Your task to perform on an android device: Search for "logitech g pro" on newegg.com, select the first entry, and add it to the cart. Image 0: 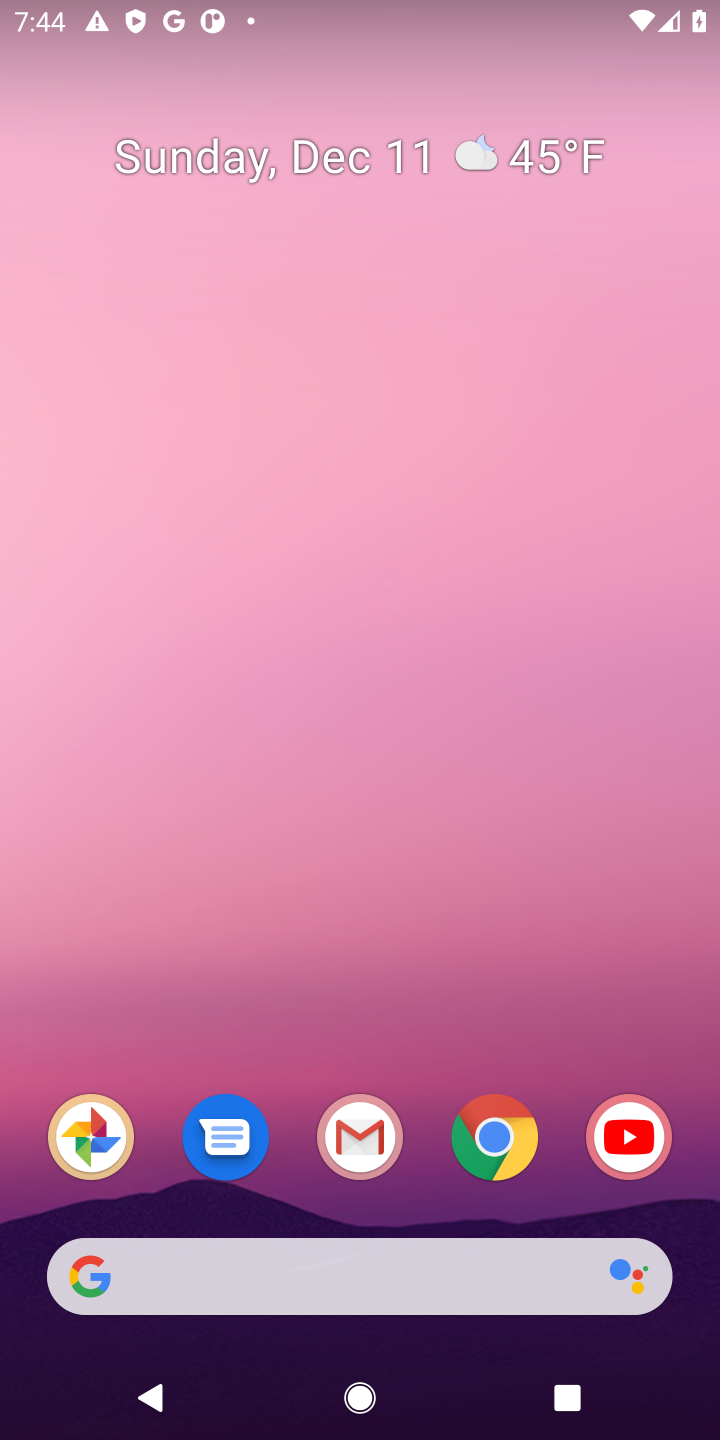
Step 0: click (504, 1138)
Your task to perform on an android device: Search for "logitech g pro" on newegg.com, select the first entry, and add it to the cart. Image 1: 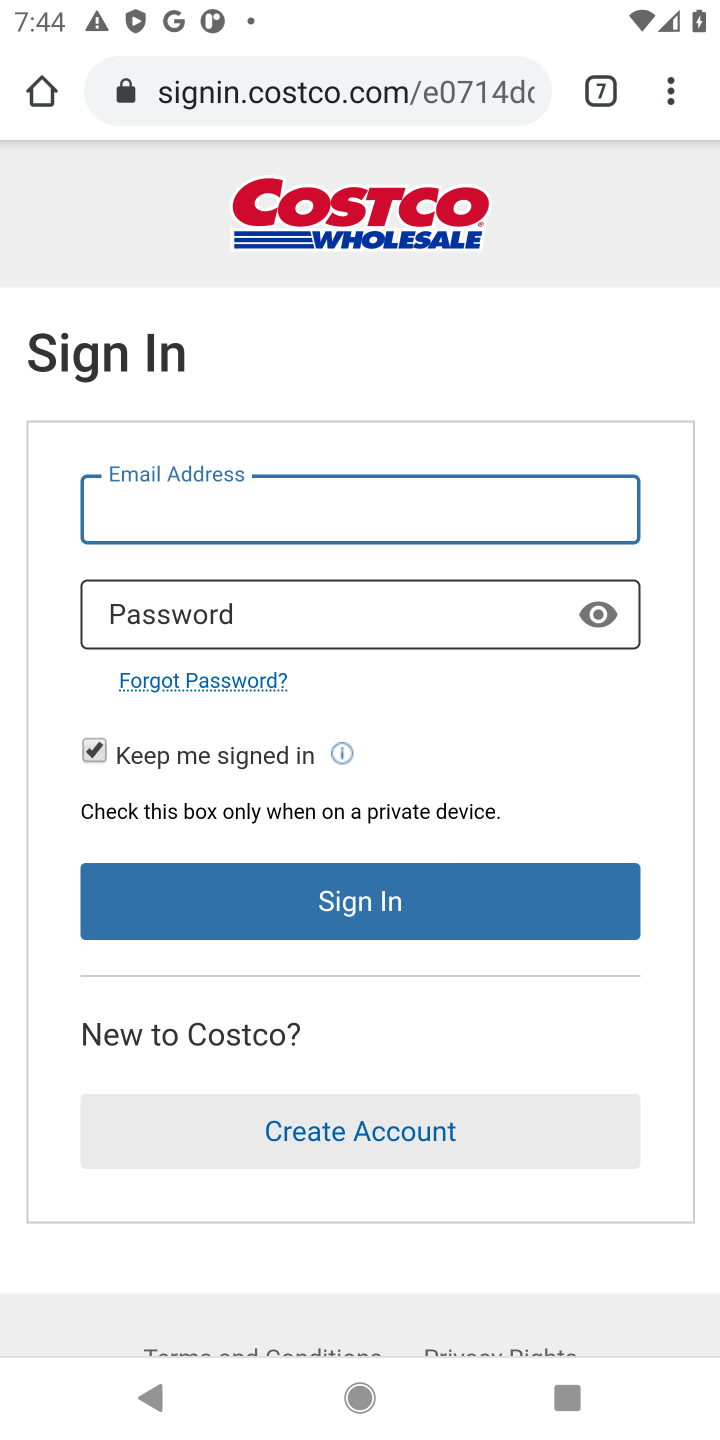
Step 1: click (308, 86)
Your task to perform on an android device: Search for "logitech g pro" on newegg.com, select the first entry, and add it to the cart. Image 2: 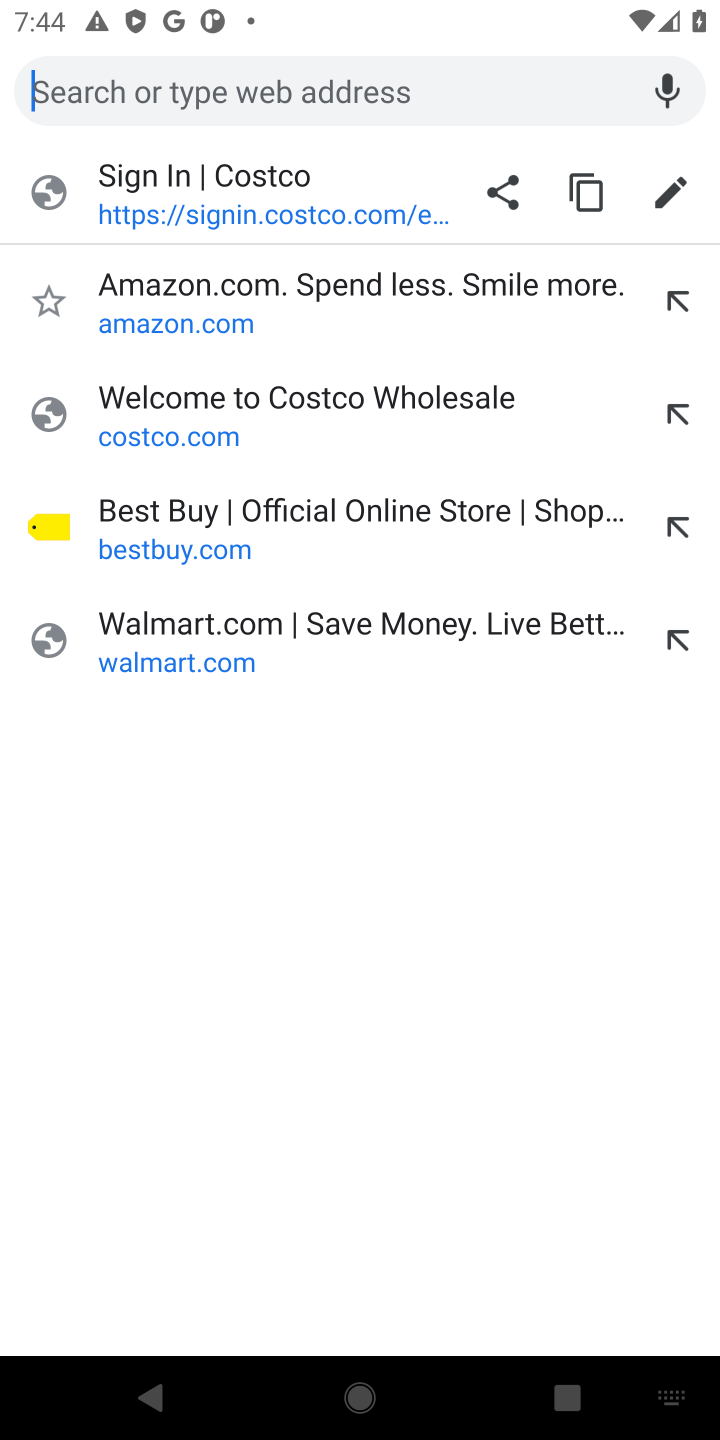
Step 2: type "newegg"
Your task to perform on an android device: Search for "logitech g pro" on newegg.com, select the first entry, and add it to the cart. Image 3: 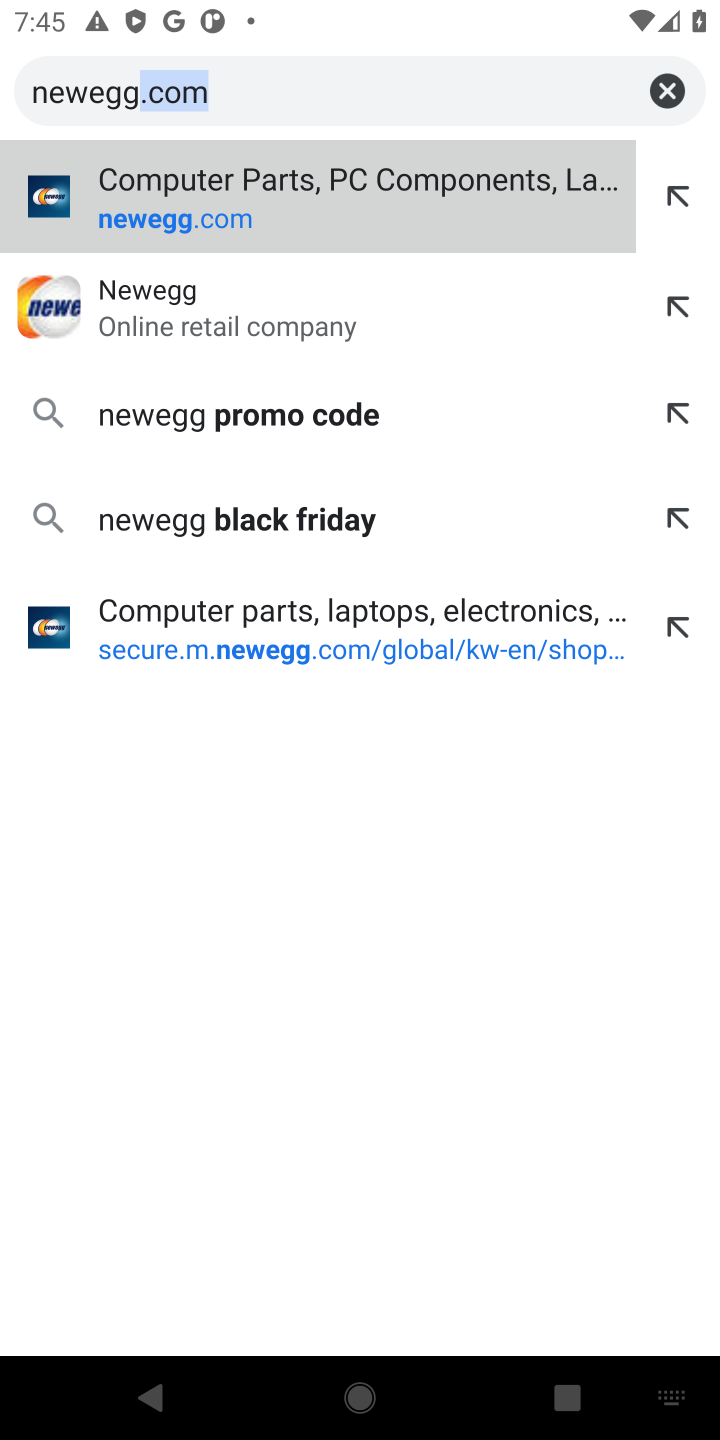
Step 3: click (108, 280)
Your task to perform on an android device: Search for "logitech g pro" on newegg.com, select the first entry, and add it to the cart. Image 4: 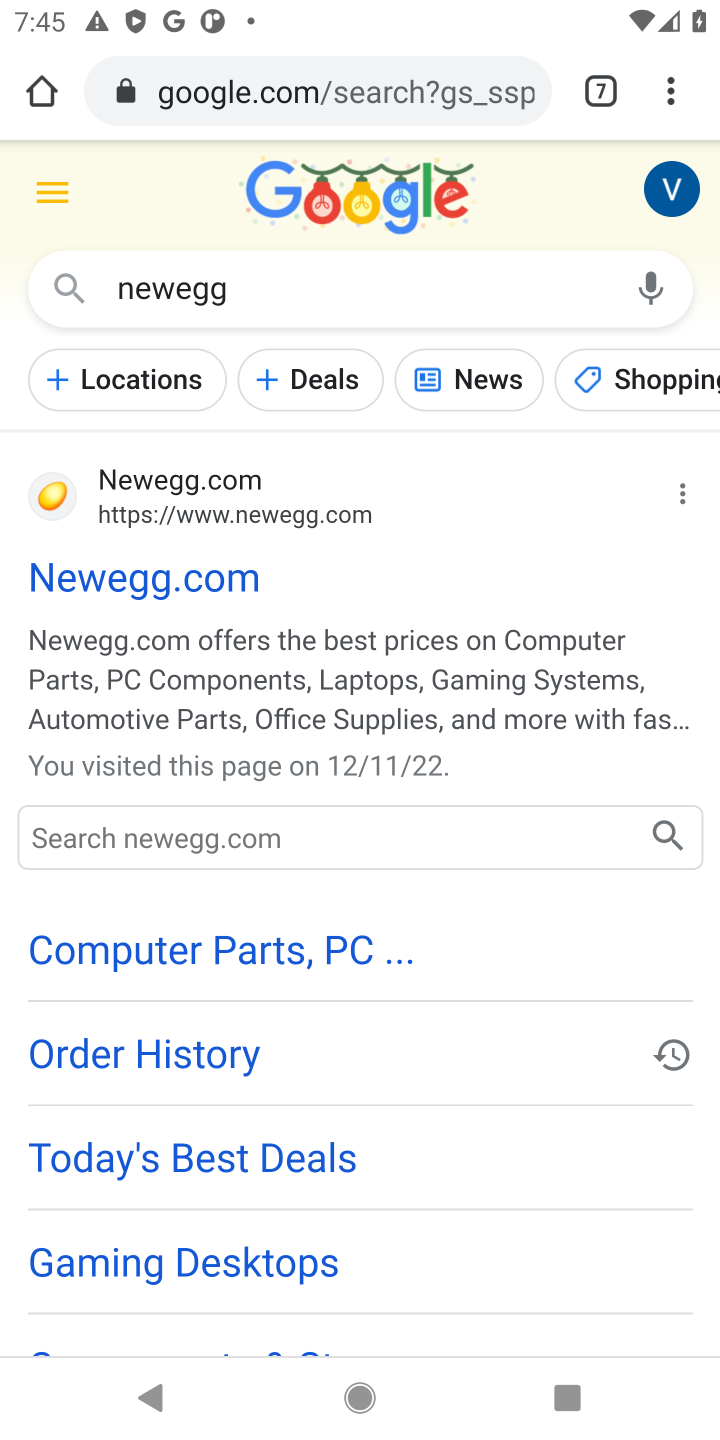
Step 4: click (131, 307)
Your task to perform on an android device: Search for "logitech g pro" on newegg.com, select the first entry, and add it to the cart. Image 5: 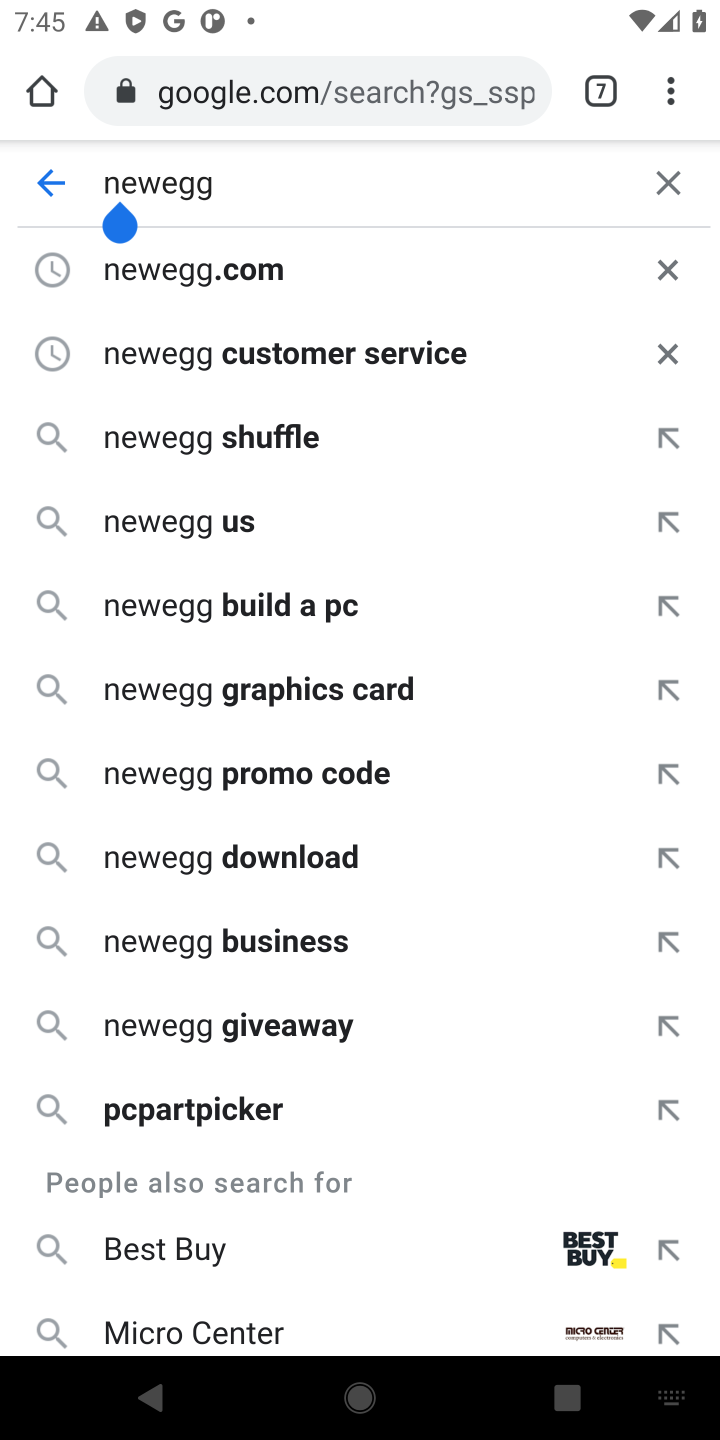
Step 5: click (202, 278)
Your task to perform on an android device: Search for "logitech g pro" on newegg.com, select the first entry, and add it to the cart. Image 6: 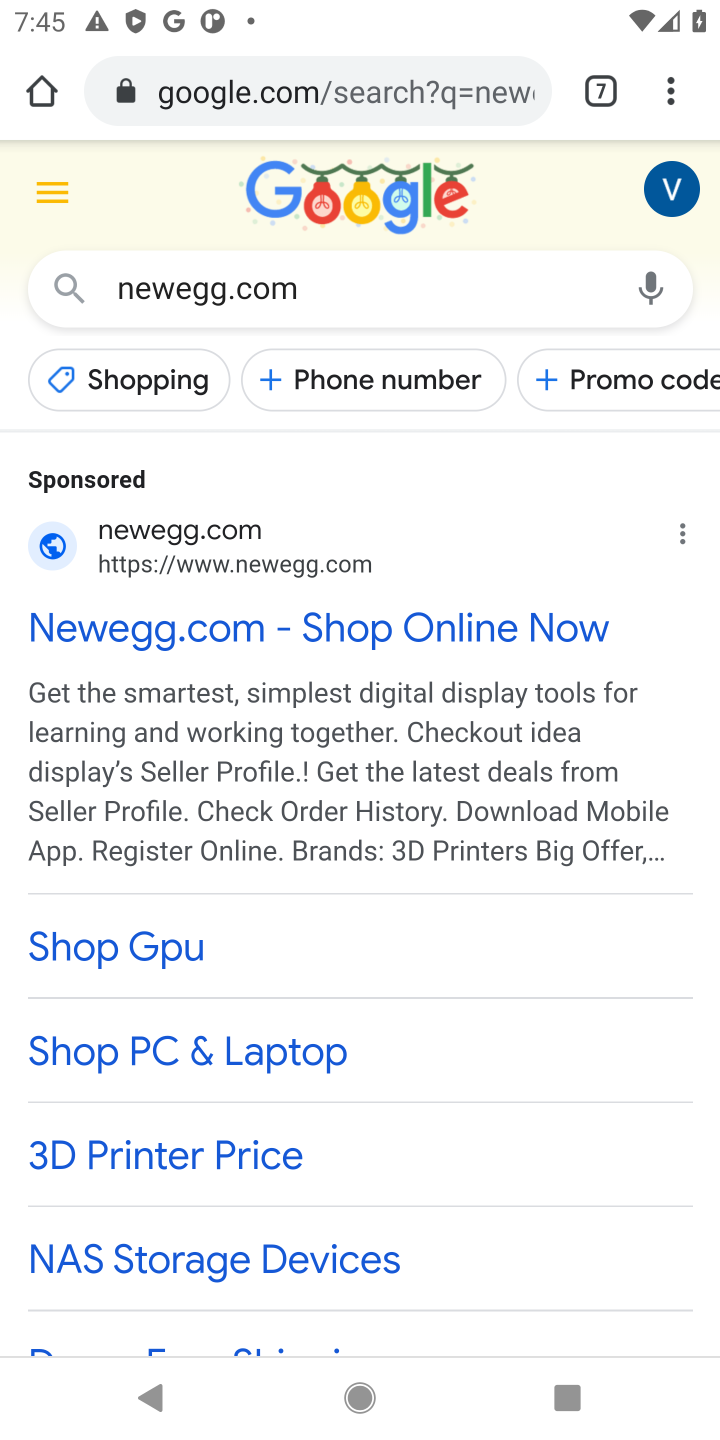
Step 6: click (166, 643)
Your task to perform on an android device: Search for "logitech g pro" on newegg.com, select the first entry, and add it to the cart. Image 7: 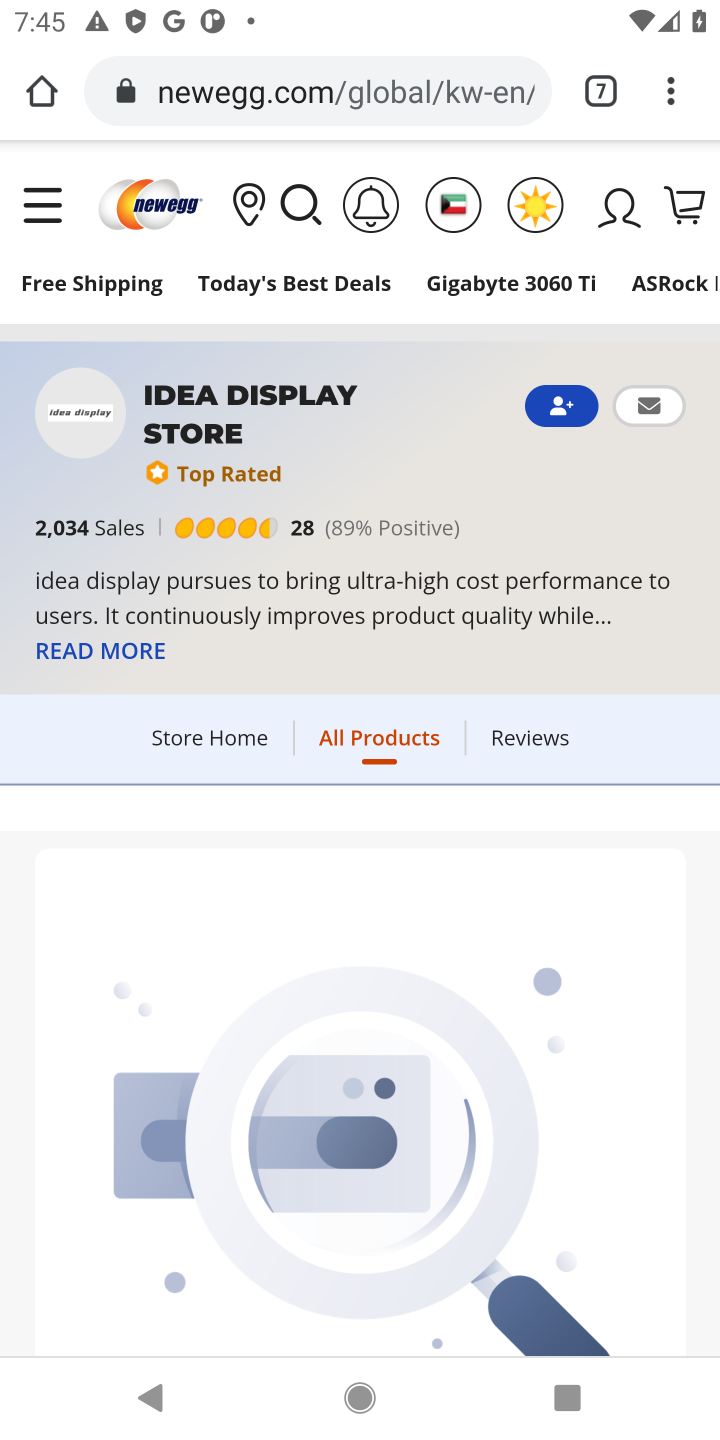
Step 7: click (294, 212)
Your task to perform on an android device: Search for "logitech g pro" on newegg.com, select the first entry, and add it to the cart. Image 8: 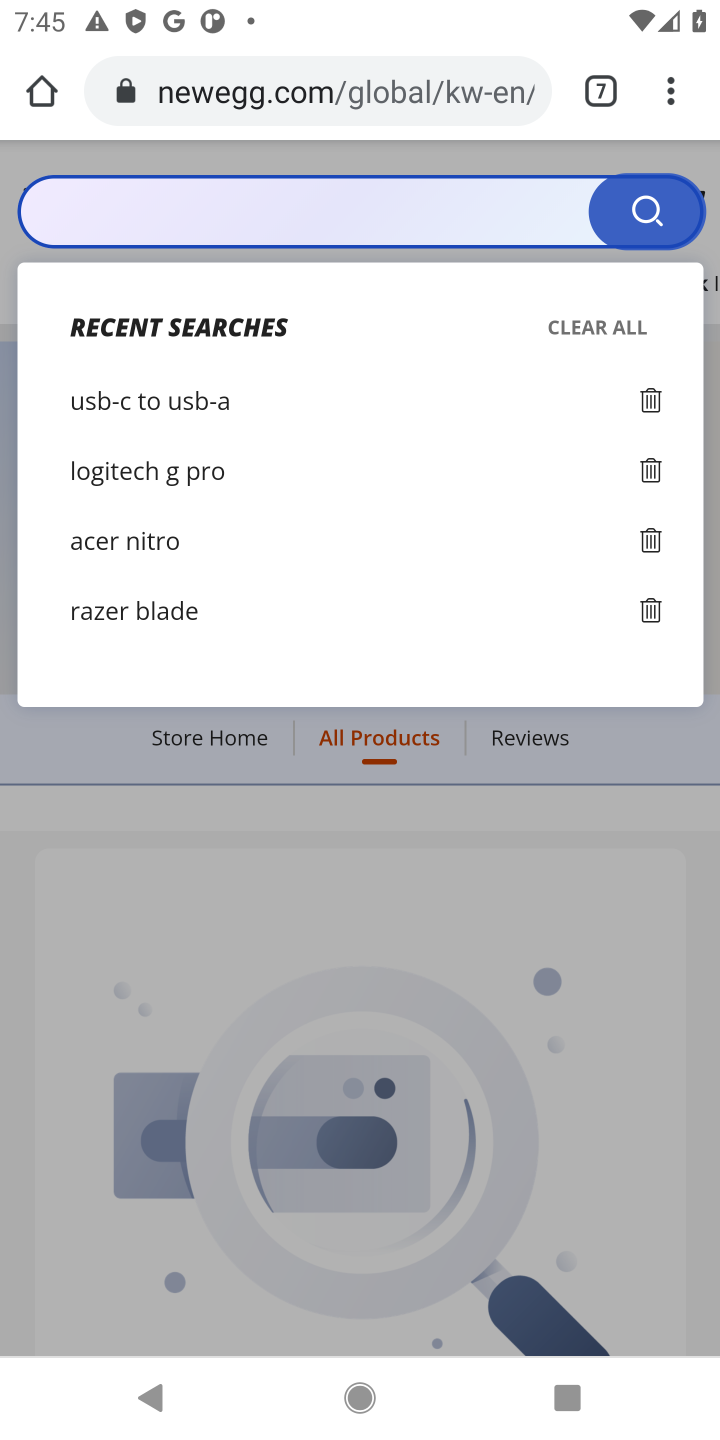
Step 8: click (294, 212)
Your task to perform on an android device: Search for "logitech g pro" on newegg.com, select the first entry, and add it to the cart. Image 9: 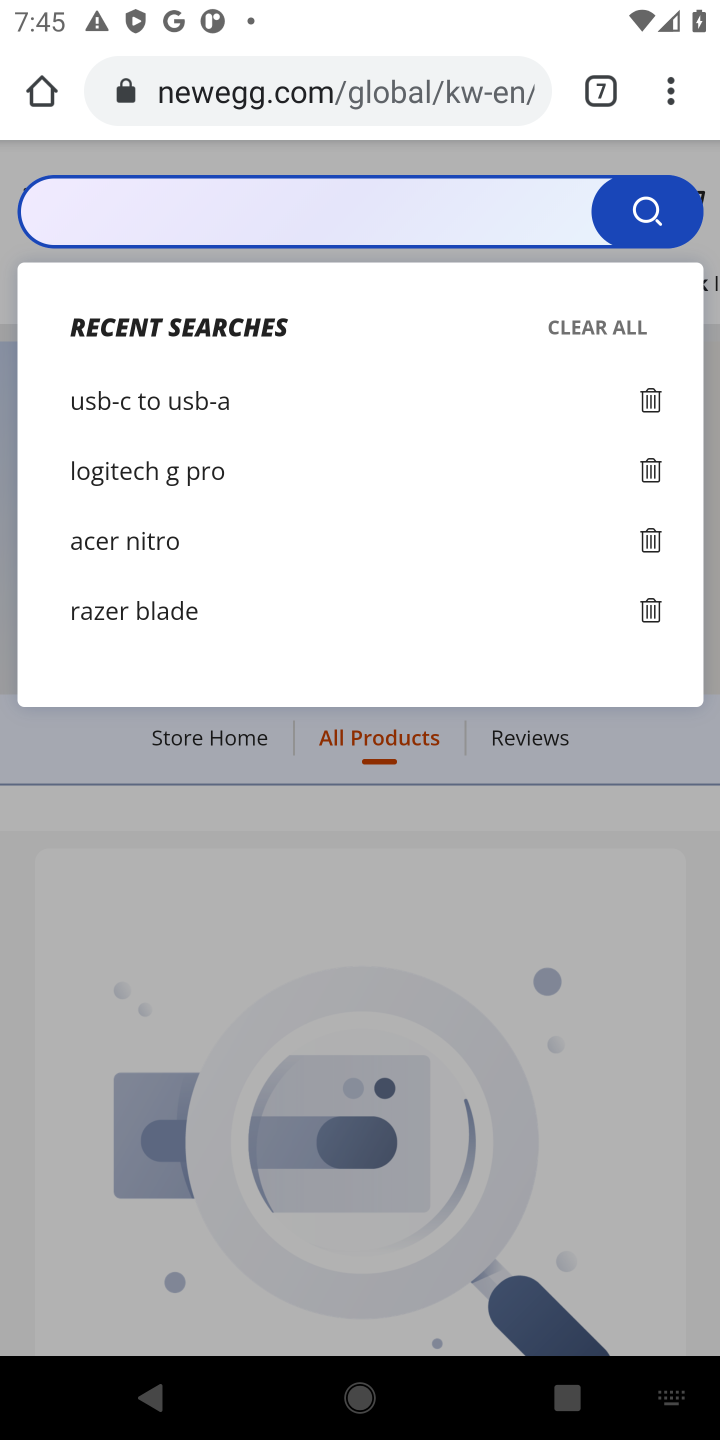
Step 9: type "logitech g pro"
Your task to perform on an android device: Search for "logitech g pro" on newegg.com, select the first entry, and add it to the cart. Image 10: 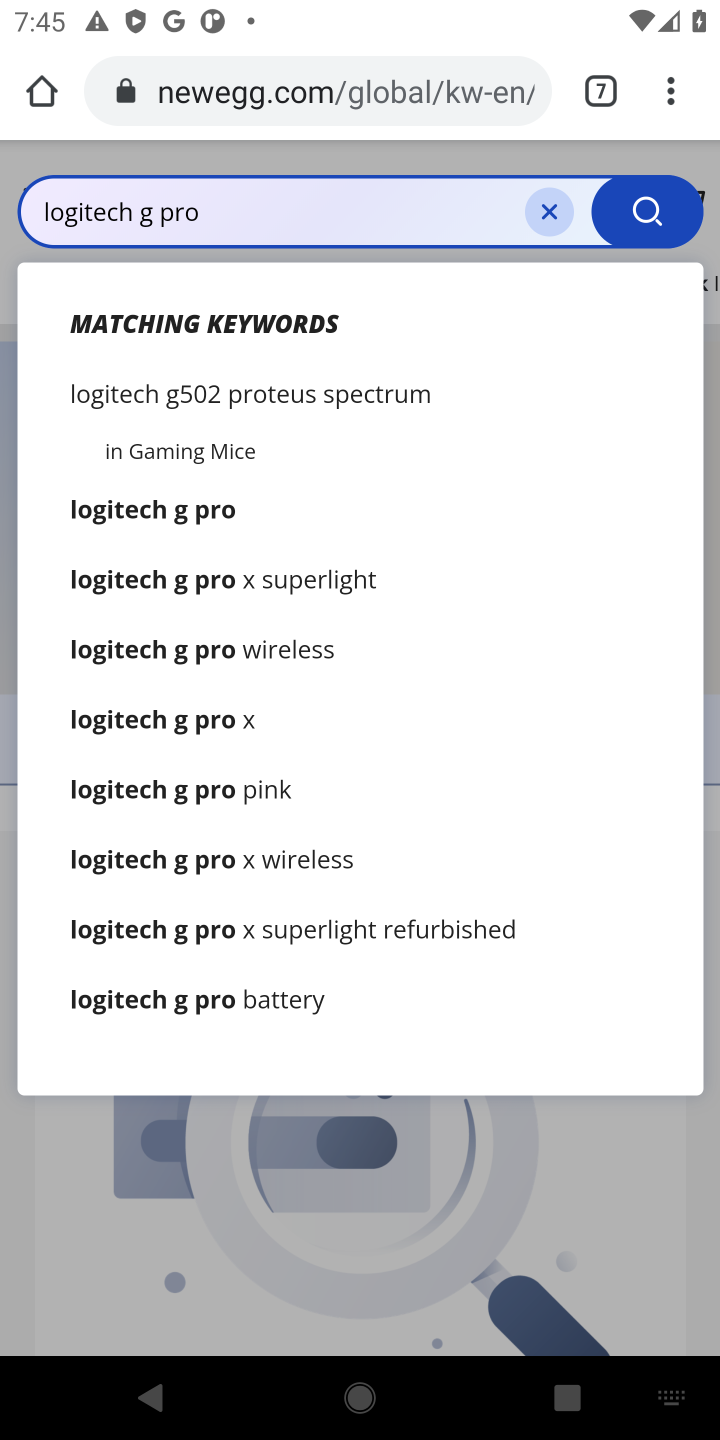
Step 10: click (664, 209)
Your task to perform on an android device: Search for "logitech g pro" on newegg.com, select the first entry, and add it to the cart. Image 11: 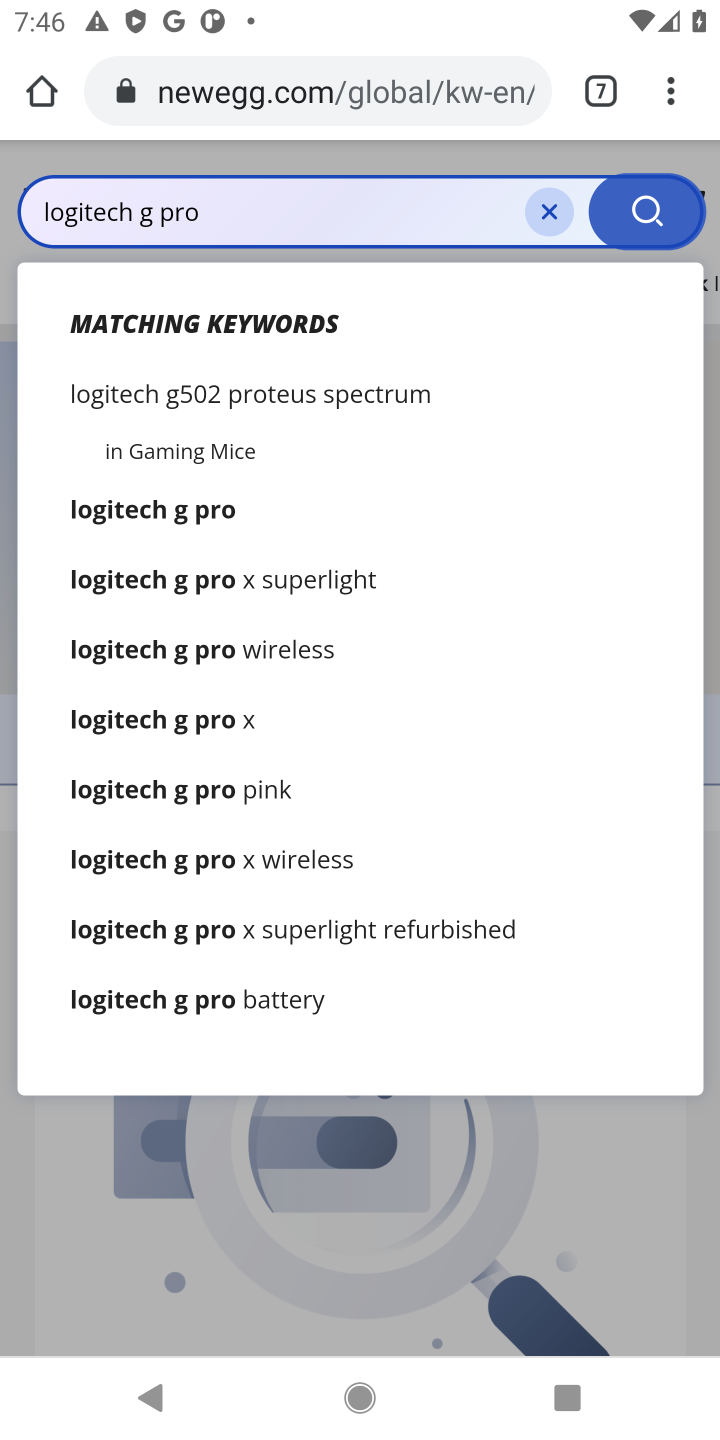
Step 11: click (666, 231)
Your task to perform on an android device: Search for "logitech g pro" on newegg.com, select the first entry, and add it to the cart. Image 12: 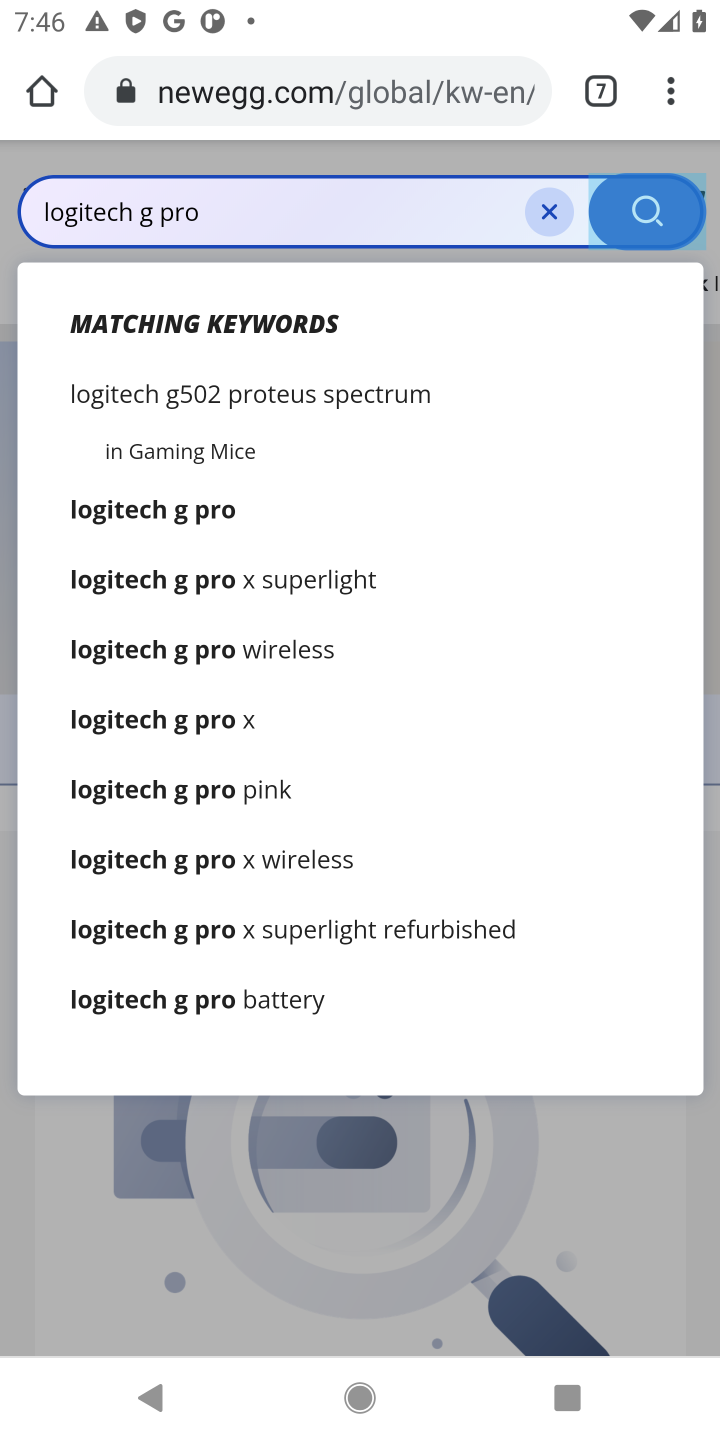
Step 12: click (666, 231)
Your task to perform on an android device: Search for "logitech g pro" on newegg.com, select the first entry, and add it to the cart. Image 13: 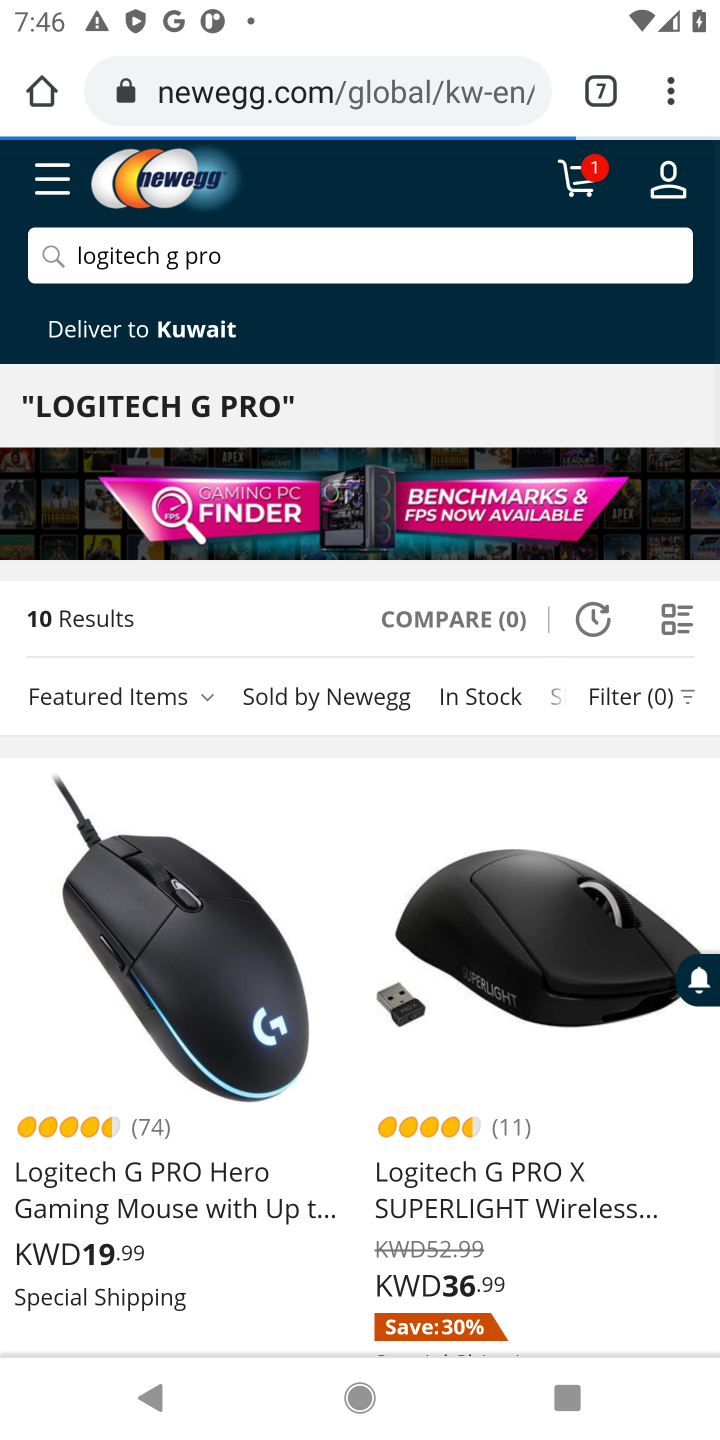
Step 13: click (147, 526)
Your task to perform on an android device: Search for "logitech g pro" on newegg.com, select the first entry, and add it to the cart. Image 14: 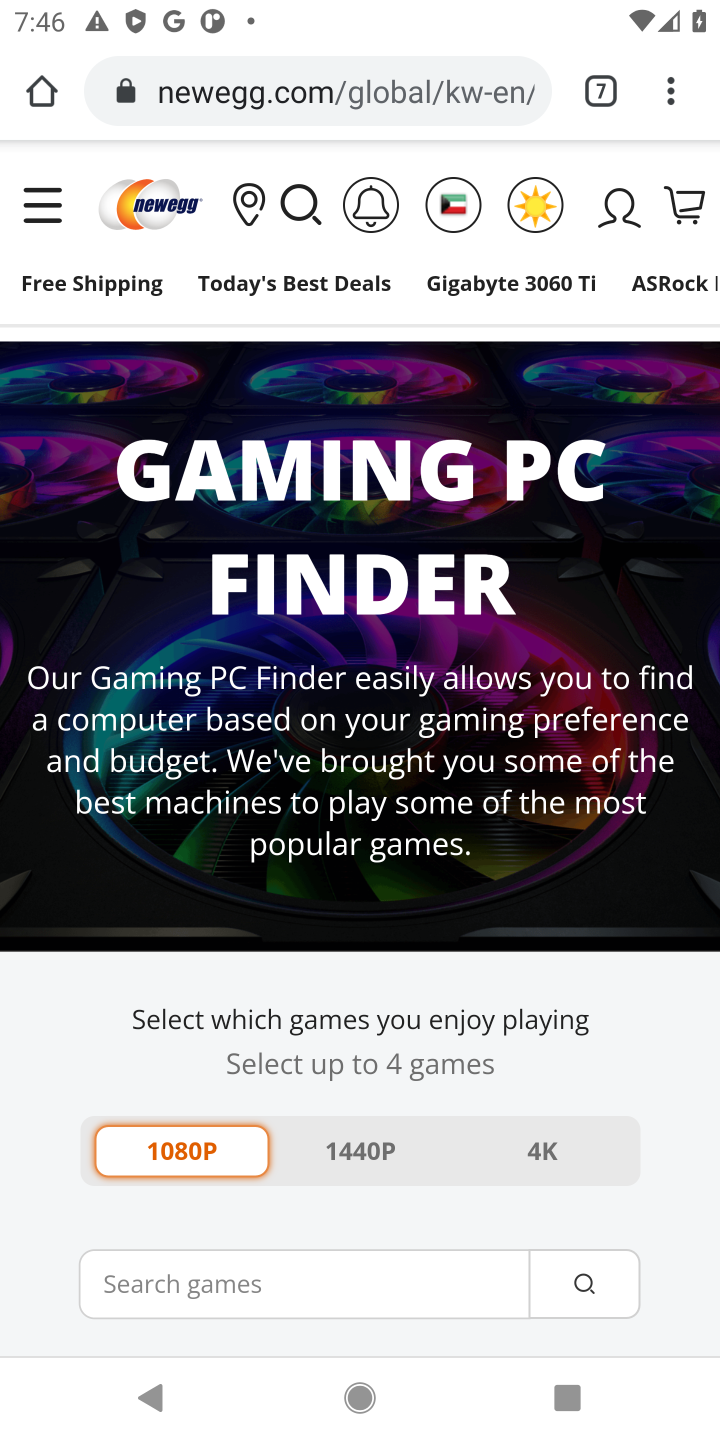
Step 14: click (543, 1140)
Your task to perform on an android device: Search for "logitech g pro" on newegg.com, select the first entry, and add it to the cart. Image 15: 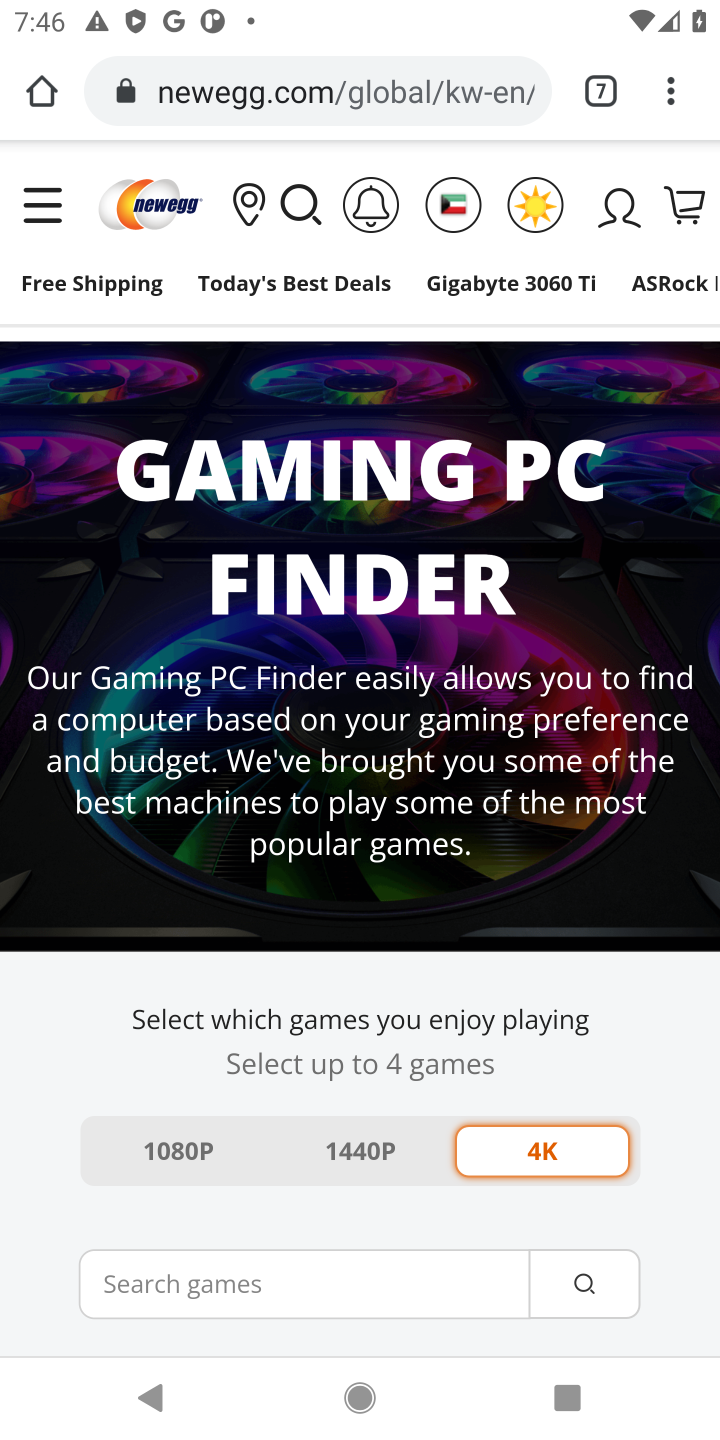
Step 15: click (543, 1140)
Your task to perform on an android device: Search for "logitech g pro" on newegg.com, select the first entry, and add it to the cart. Image 16: 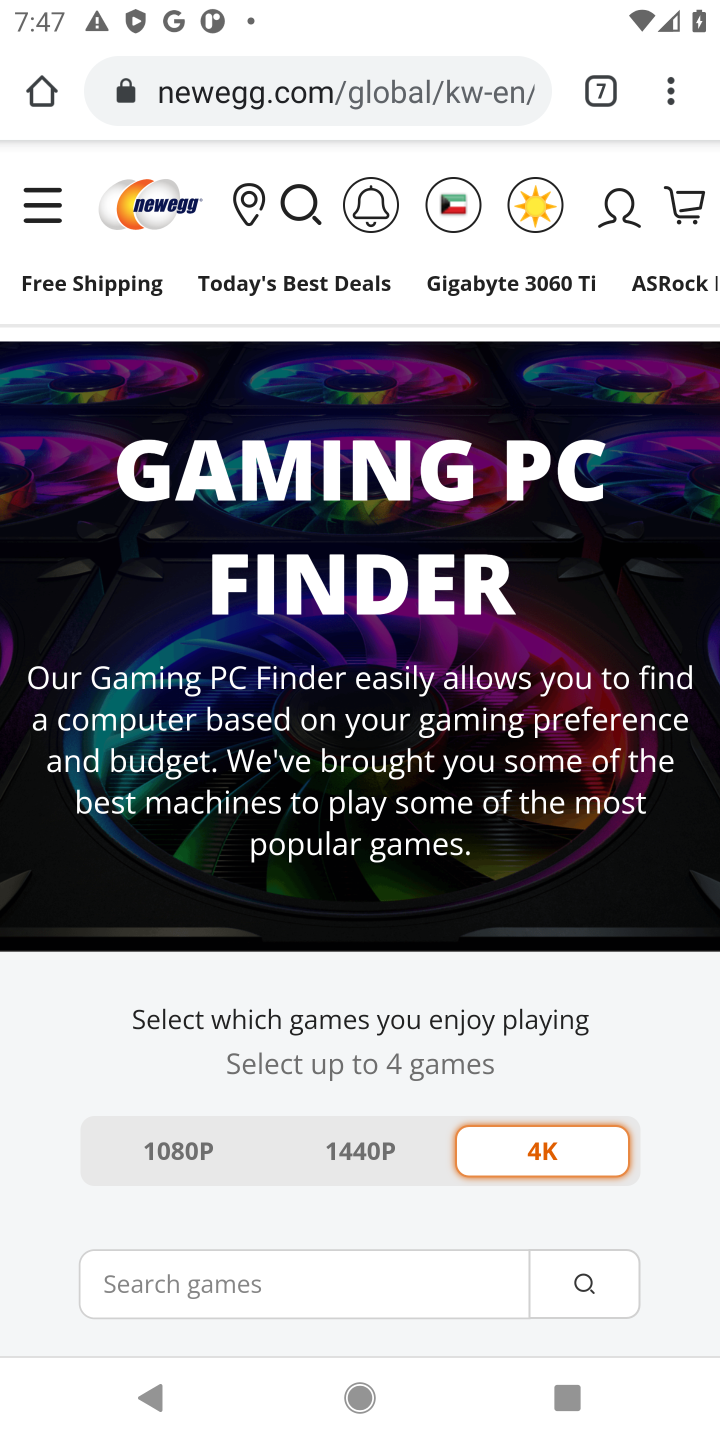
Step 16: click (297, 208)
Your task to perform on an android device: Search for "logitech g pro" on newegg.com, select the first entry, and add it to the cart. Image 17: 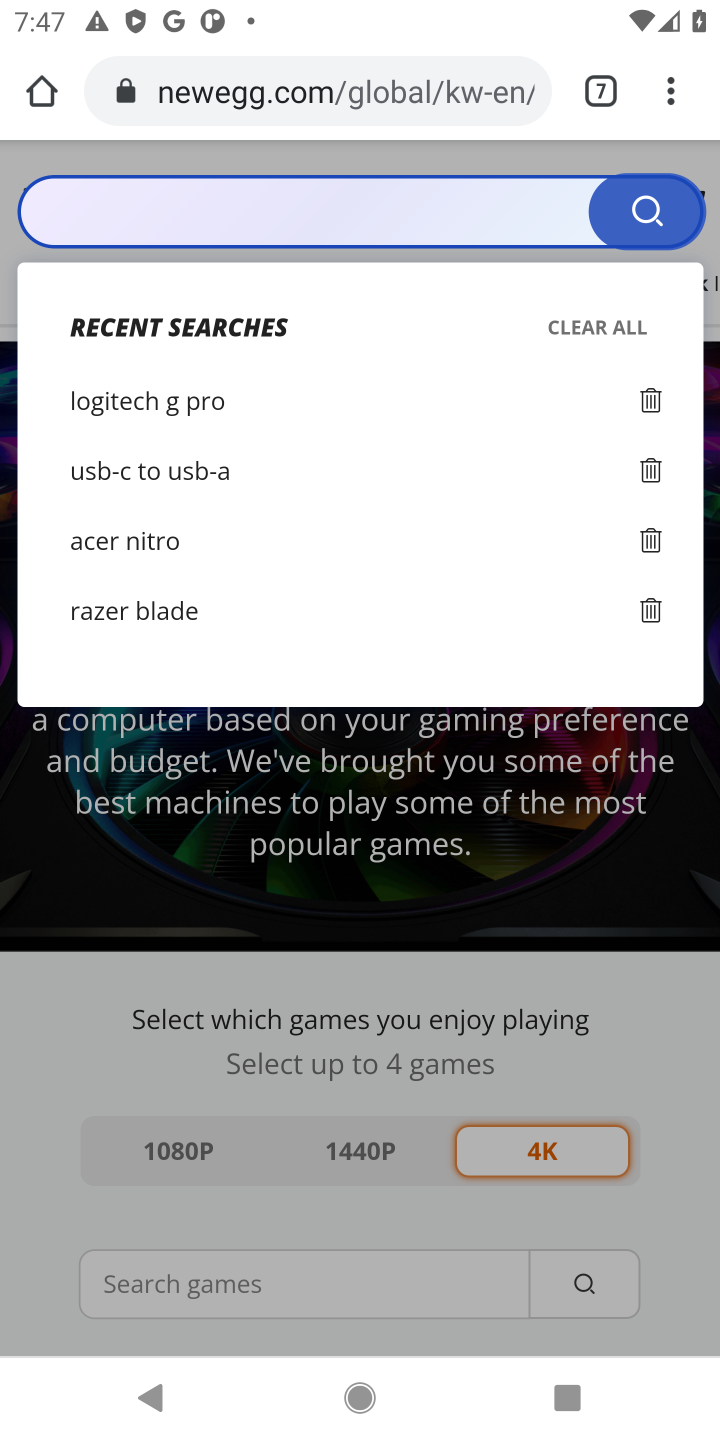
Step 17: click (221, 421)
Your task to perform on an android device: Search for "logitech g pro" on newegg.com, select the first entry, and add it to the cart. Image 18: 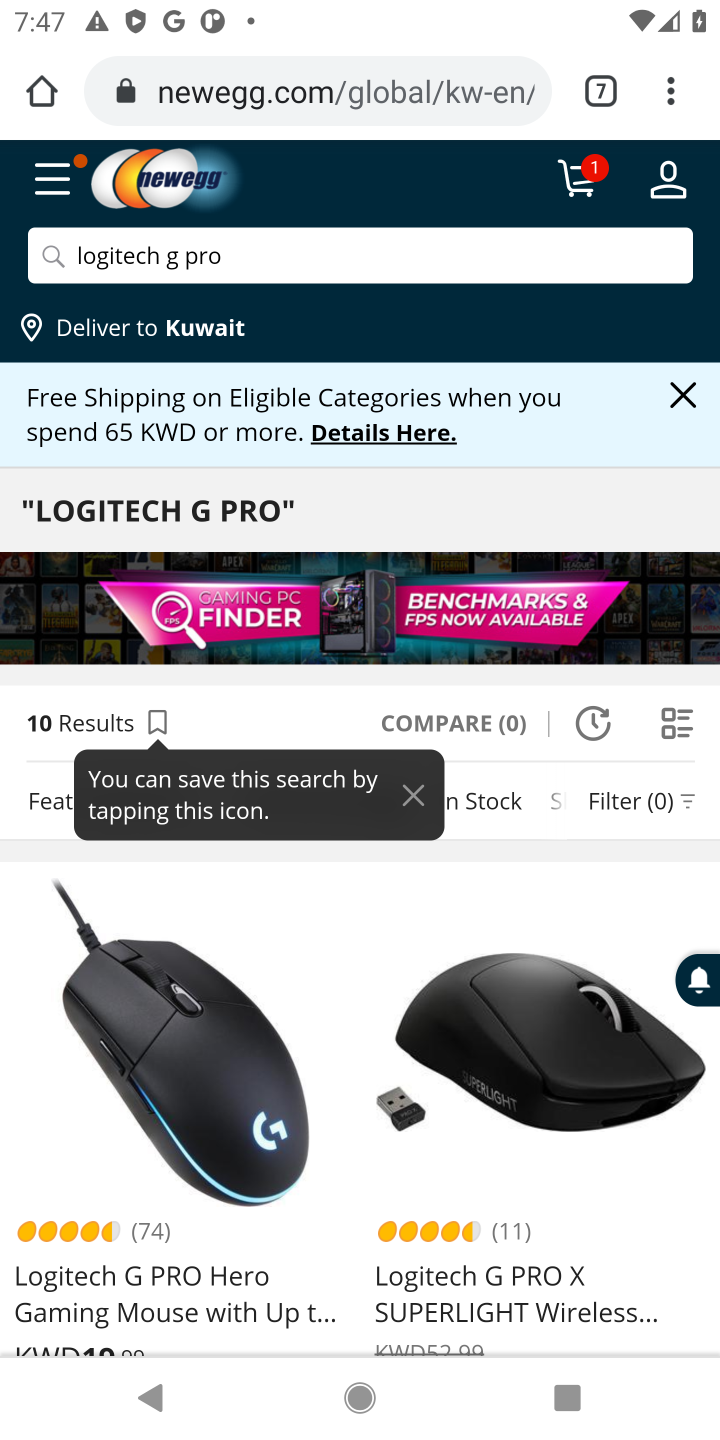
Step 18: click (100, 1118)
Your task to perform on an android device: Search for "logitech g pro" on newegg.com, select the first entry, and add it to the cart. Image 19: 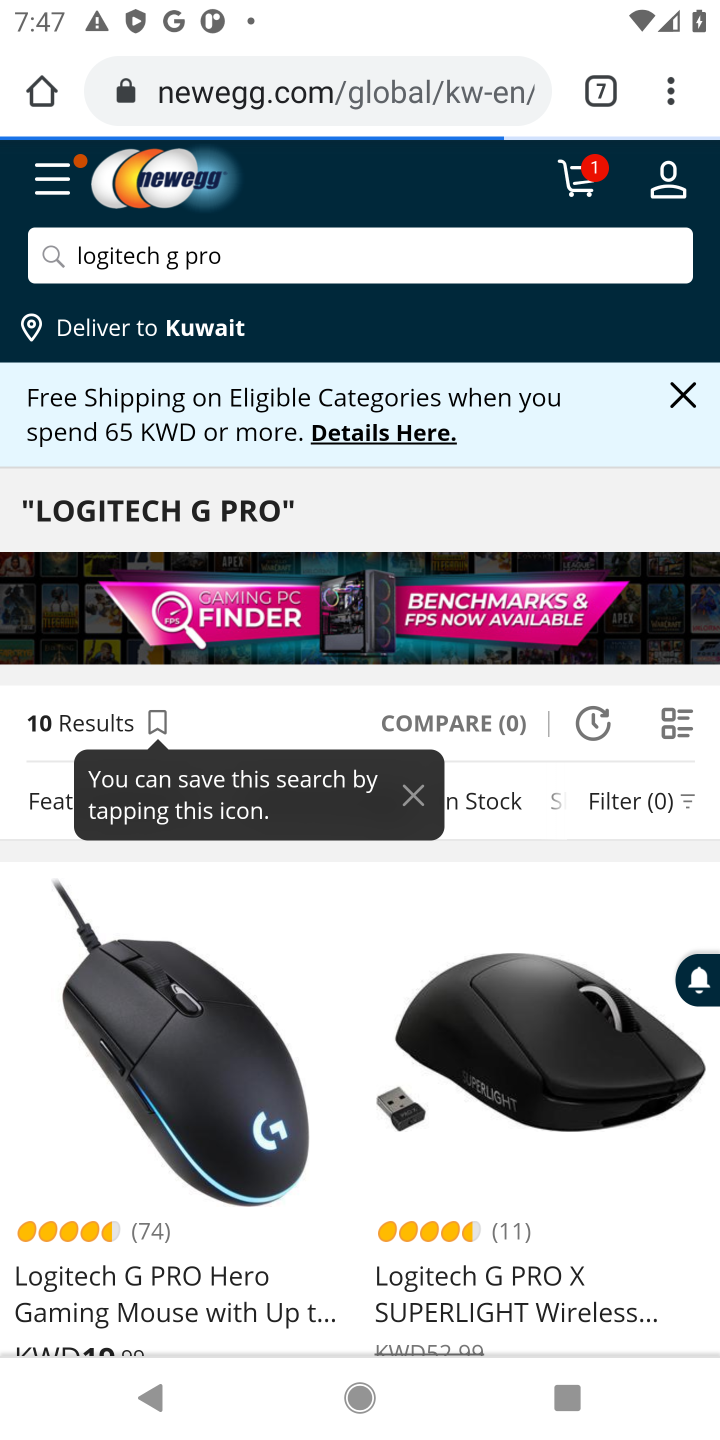
Step 19: click (200, 1289)
Your task to perform on an android device: Search for "logitech g pro" on newegg.com, select the first entry, and add it to the cart. Image 20: 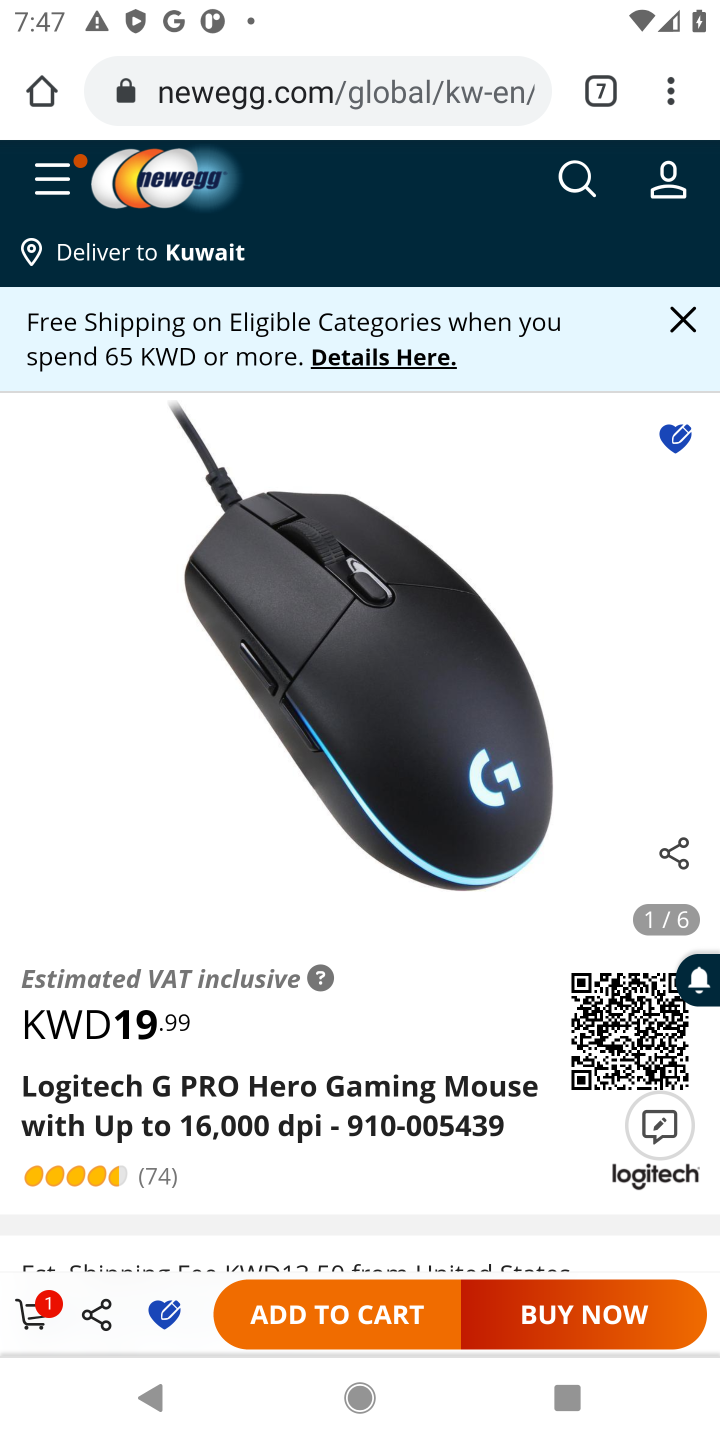
Step 20: click (133, 1287)
Your task to perform on an android device: Search for "logitech g pro" on newegg.com, select the first entry, and add it to the cart. Image 21: 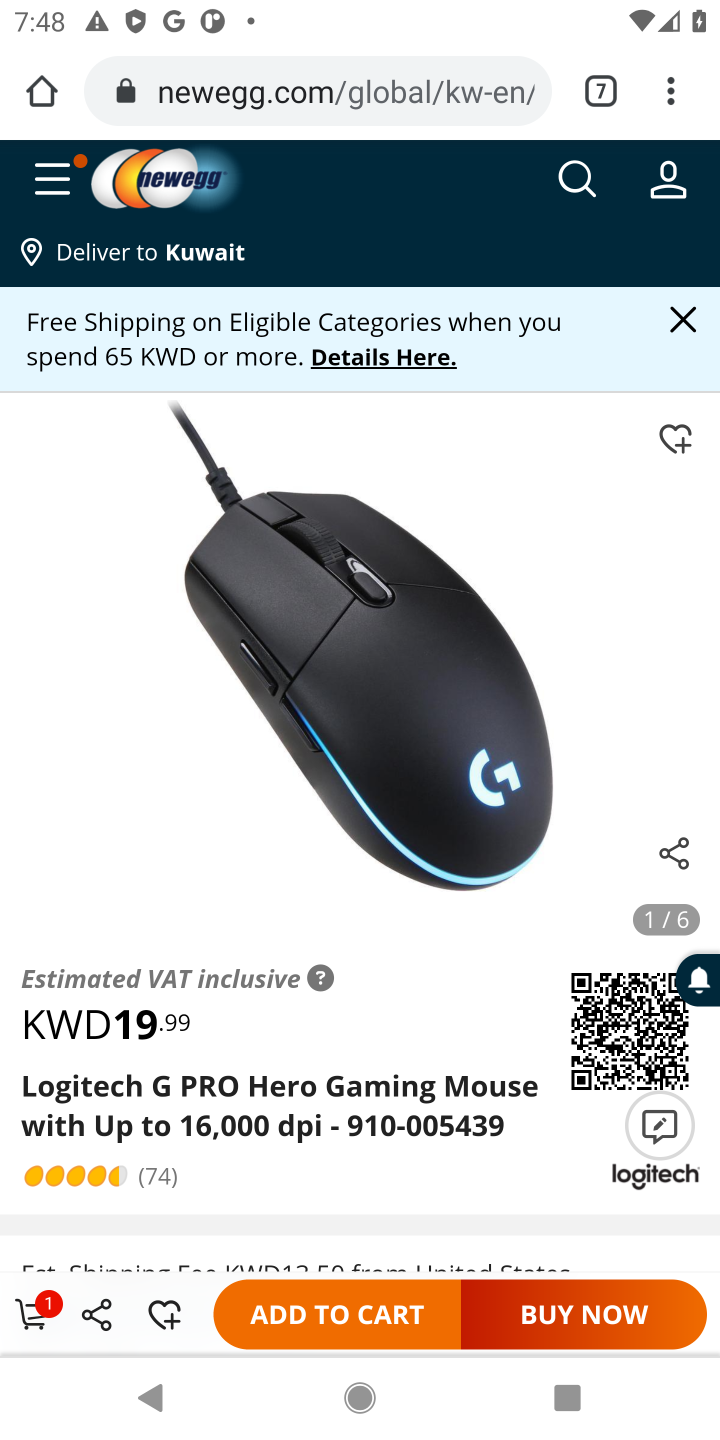
Step 21: click (302, 1332)
Your task to perform on an android device: Search for "logitech g pro" on newegg.com, select the first entry, and add it to the cart. Image 22: 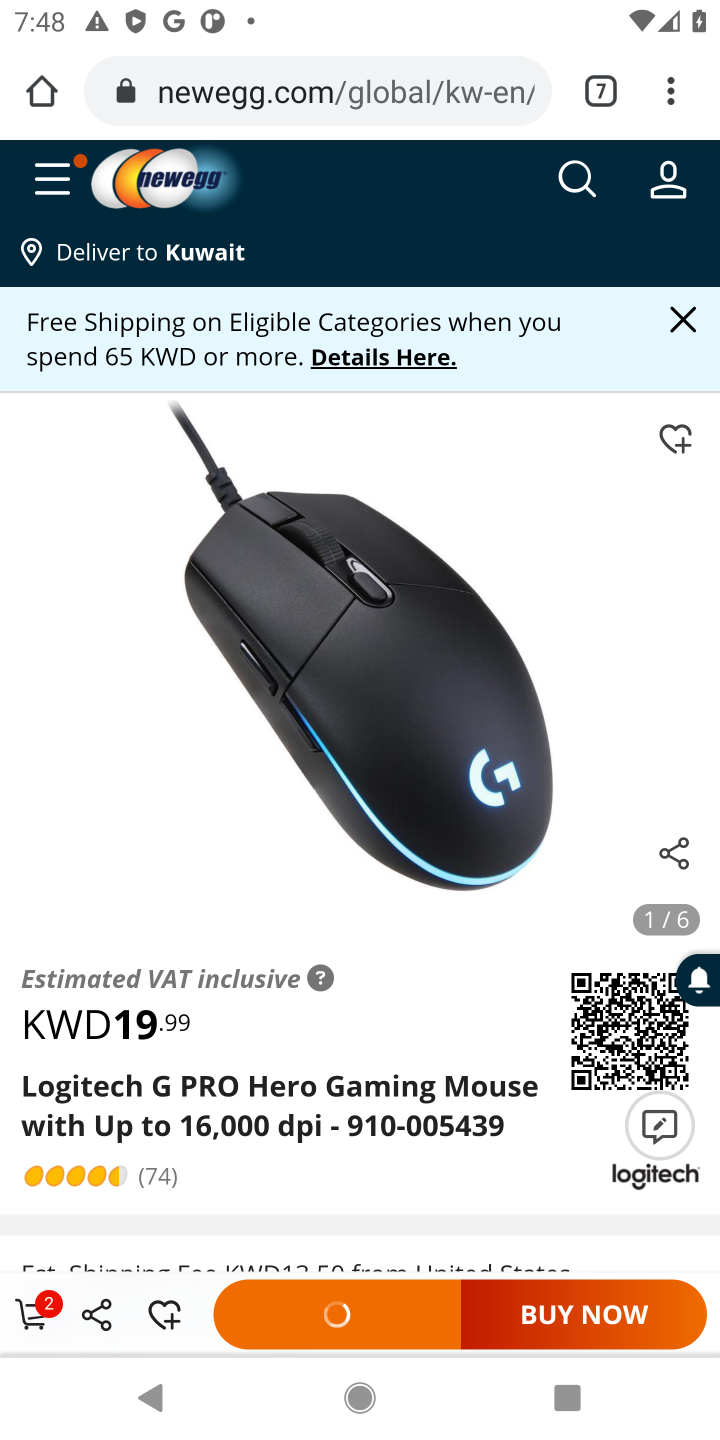
Step 22: click (324, 1314)
Your task to perform on an android device: Search for "logitech g pro" on newegg.com, select the first entry, and add it to the cart. Image 23: 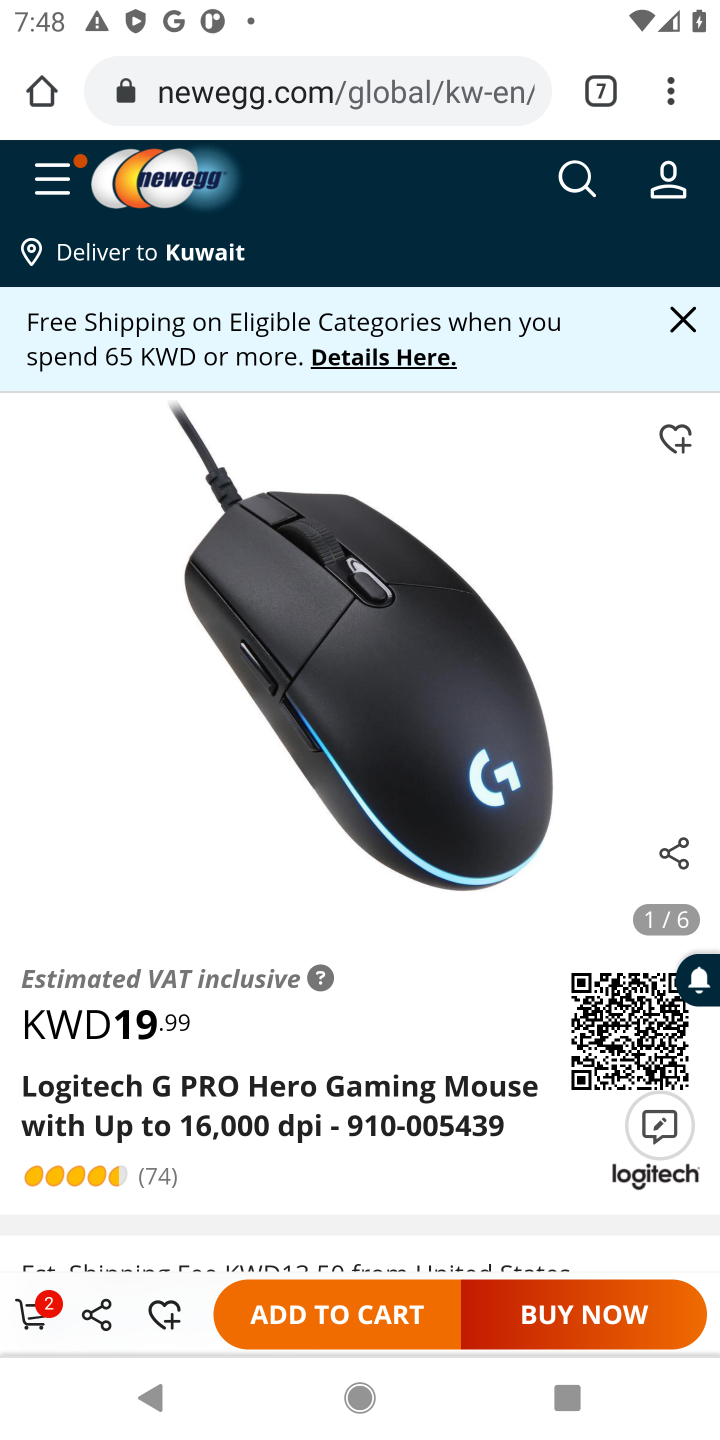
Step 23: task complete